Your task to perform on an android device: Play the last video I watched on Youtube Image 0: 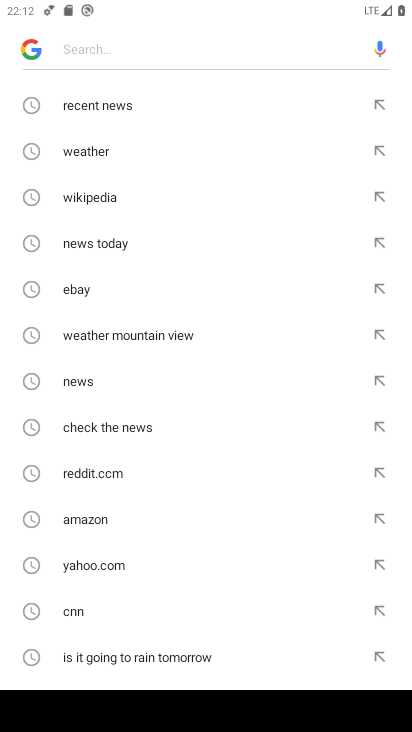
Step 0: press home button
Your task to perform on an android device: Play the last video I watched on Youtube Image 1: 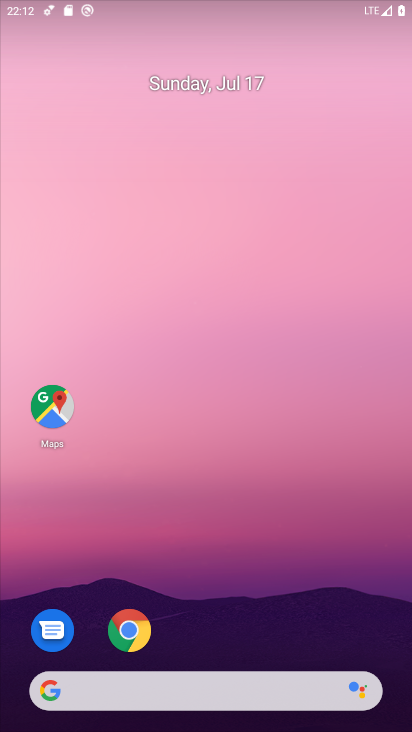
Step 1: drag from (235, 637) to (285, 22)
Your task to perform on an android device: Play the last video I watched on Youtube Image 2: 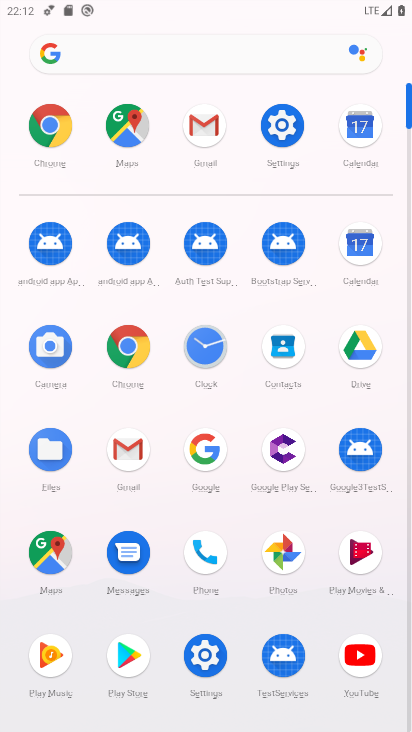
Step 2: click (352, 672)
Your task to perform on an android device: Play the last video I watched on Youtube Image 3: 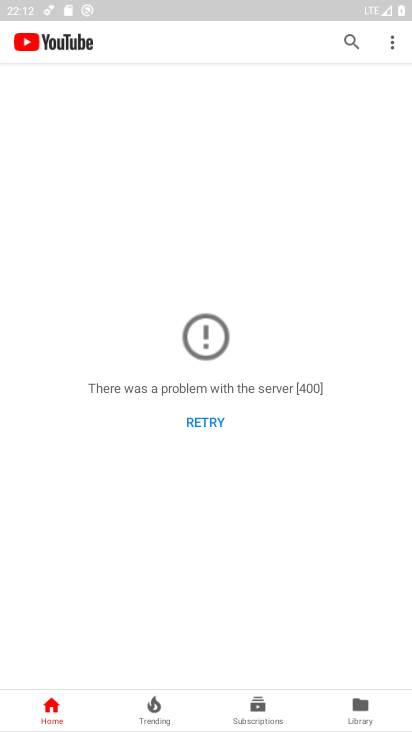
Step 3: click (209, 426)
Your task to perform on an android device: Play the last video I watched on Youtube Image 4: 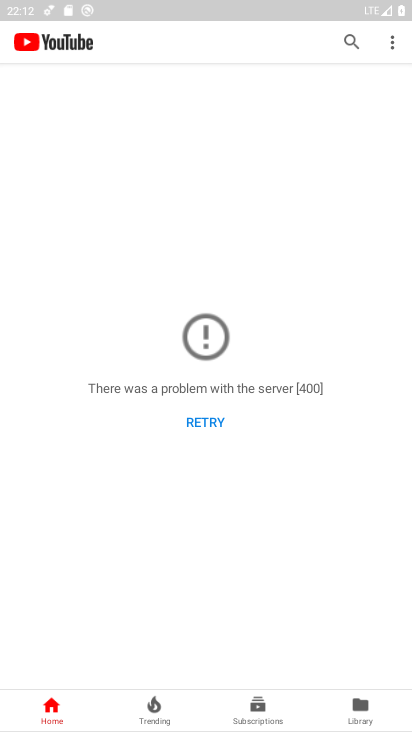
Step 4: click (211, 426)
Your task to perform on an android device: Play the last video I watched on Youtube Image 5: 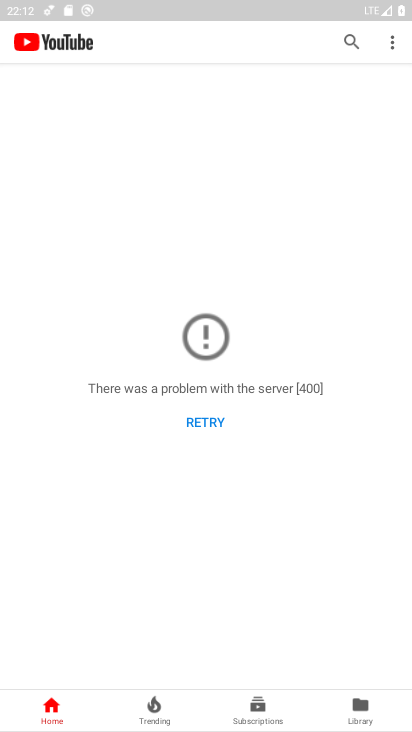
Step 5: click (211, 426)
Your task to perform on an android device: Play the last video I watched on Youtube Image 6: 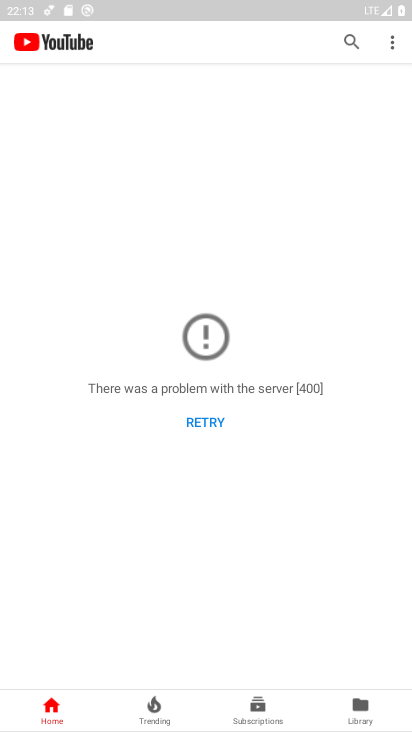
Step 6: click (215, 425)
Your task to perform on an android device: Play the last video I watched on Youtube Image 7: 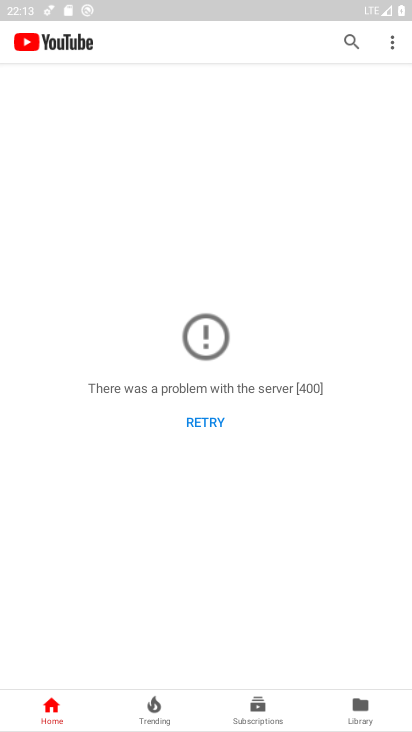
Step 7: click (215, 425)
Your task to perform on an android device: Play the last video I watched on Youtube Image 8: 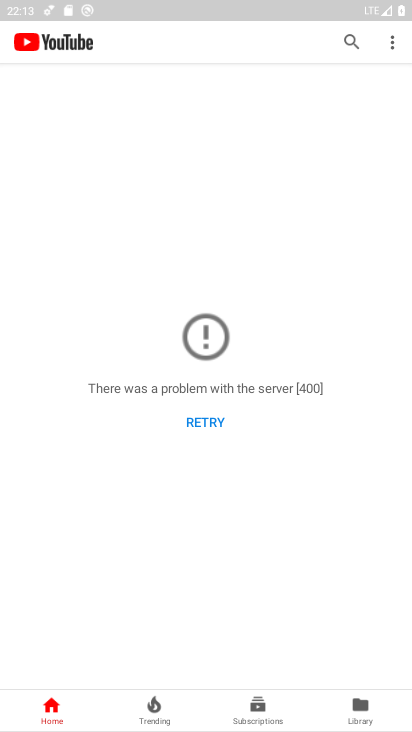
Step 8: task complete